Your task to perform on an android device: Open Google Maps and go to "Timeline" Image 0: 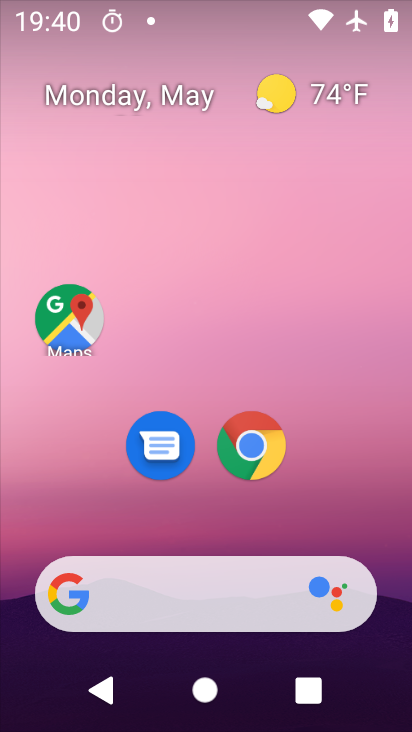
Step 0: press home button
Your task to perform on an android device: Open Google Maps and go to "Timeline" Image 1: 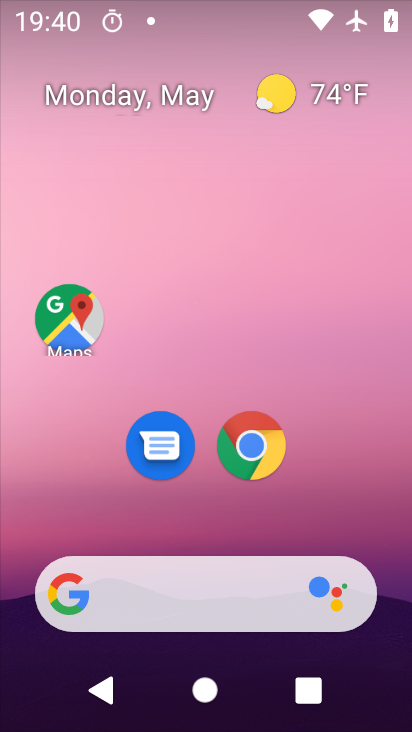
Step 1: click (72, 320)
Your task to perform on an android device: Open Google Maps and go to "Timeline" Image 2: 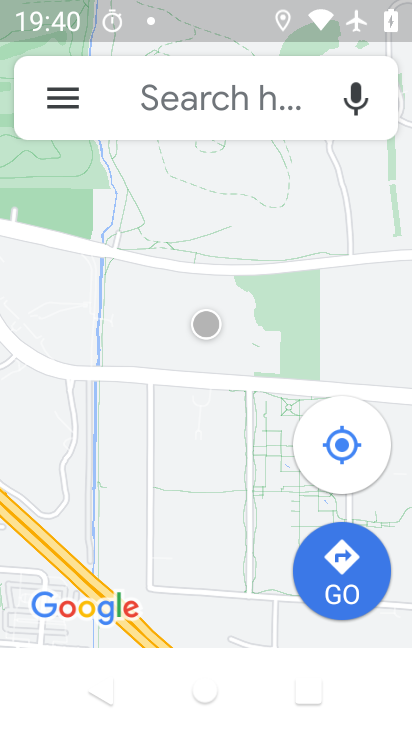
Step 2: click (50, 95)
Your task to perform on an android device: Open Google Maps and go to "Timeline" Image 3: 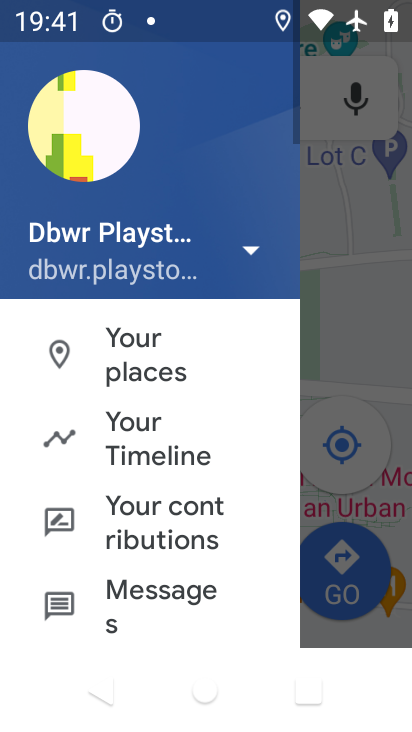
Step 3: click (147, 451)
Your task to perform on an android device: Open Google Maps and go to "Timeline" Image 4: 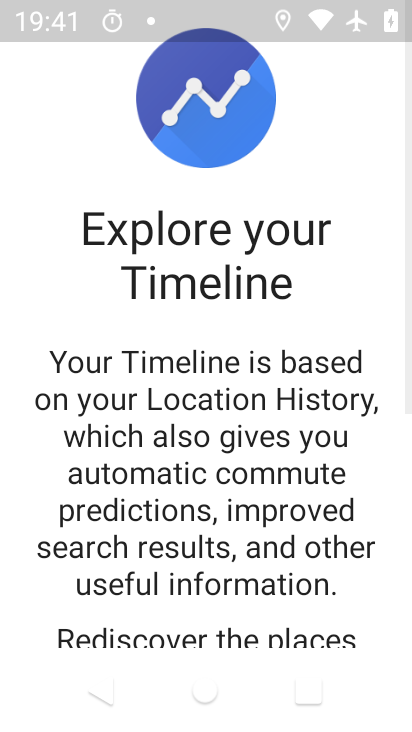
Step 4: drag from (251, 536) to (403, 88)
Your task to perform on an android device: Open Google Maps and go to "Timeline" Image 5: 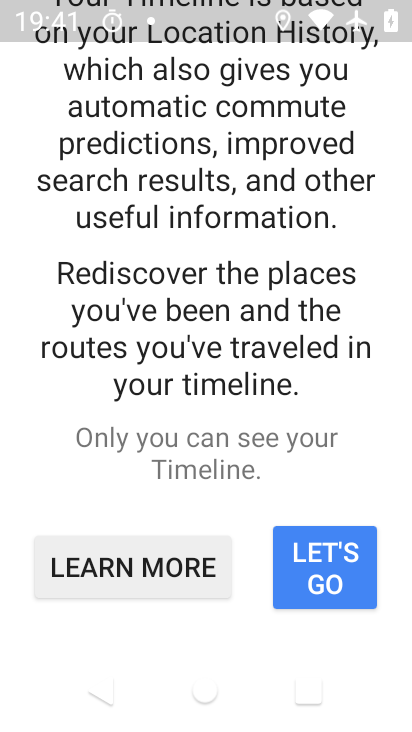
Step 5: click (310, 561)
Your task to perform on an android device: Open Google Maps and go to "Timeline" Image 6: 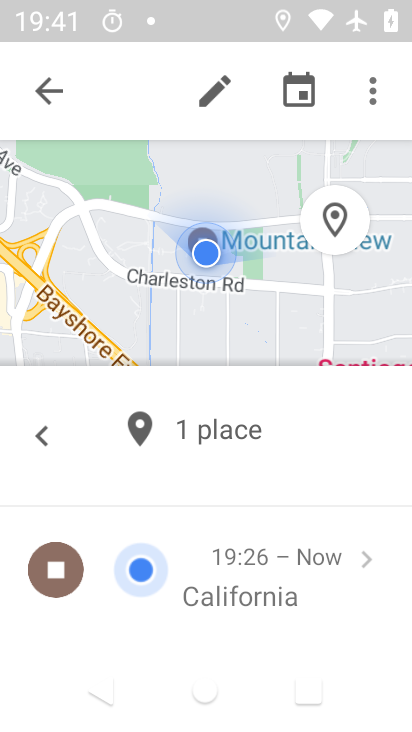
Step 6: task complete